Your task to perform on an android device: turn on showing notifications on the lock screen Image 0: 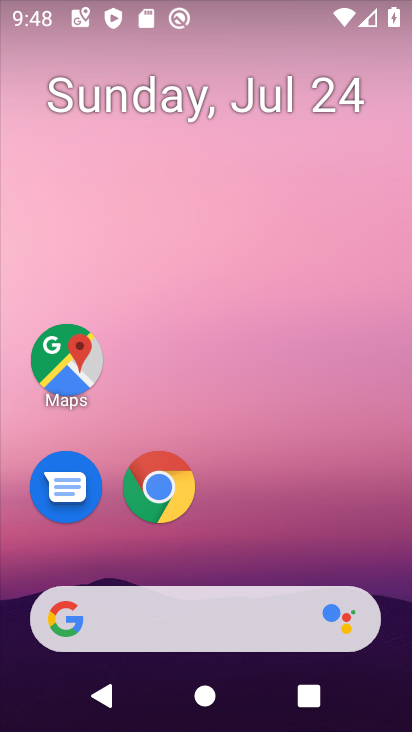
Step 0: drag from (221, 548) to (330, 0)
Your task to perform on an android device: turn on showing notifications on the lock screen Image 1: 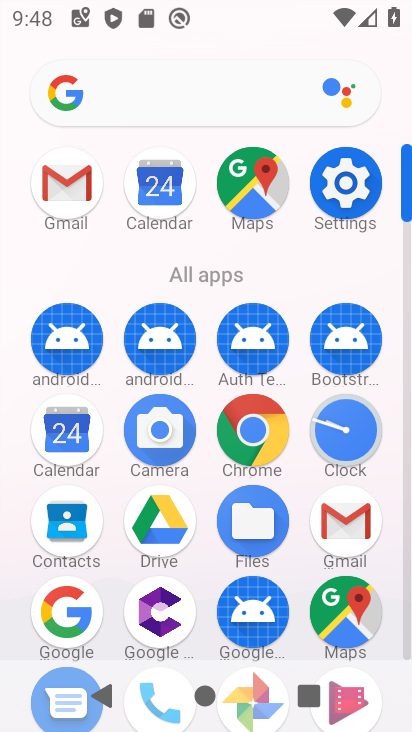
Step 1: click (348, 170)
Your task to perform on an android device: turn on showing notifications on the lock screen Image 2: 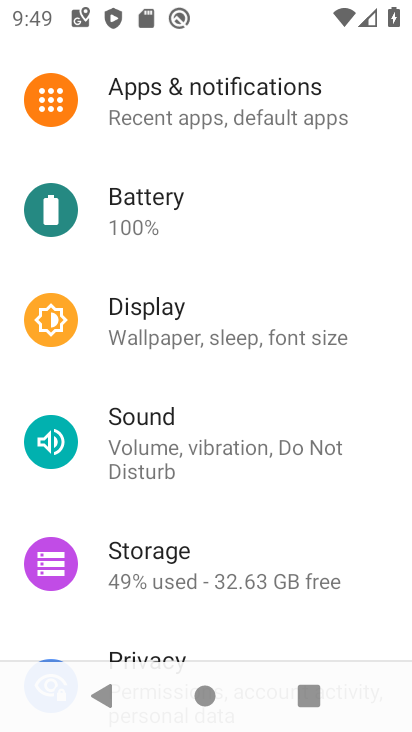
Step 2: click (183, 89)
Your task to perform on an android device: turn on showing notifications on the lock screen Image 3: 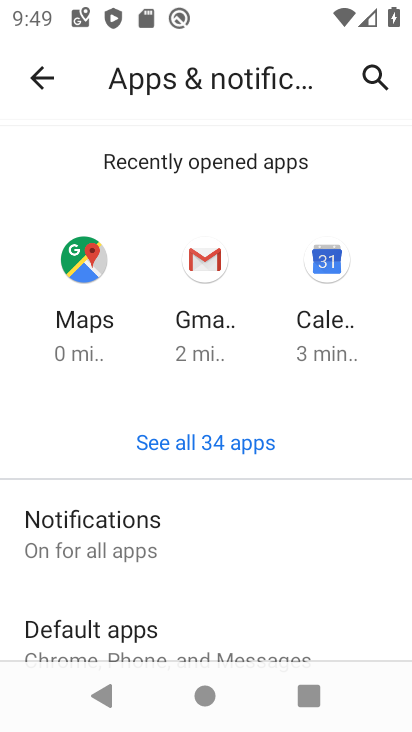
Step 3: click (174, 534)
Your task to perform on an android device: turn on showing notifications on the lock screen Image 4: 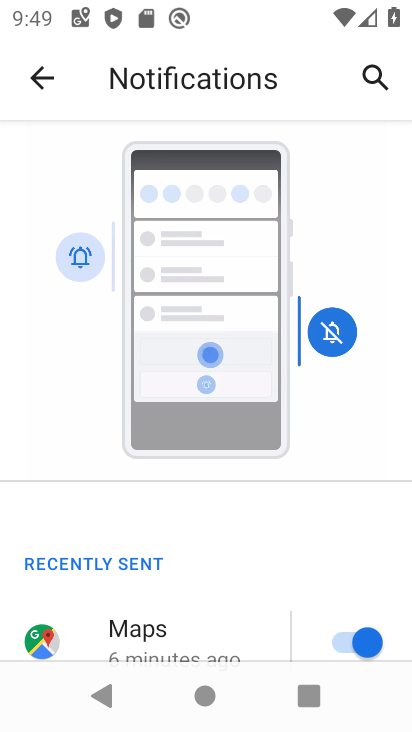
Step 4: drag from (131, 638) to (257, 67)
Your task to perform on an android device: turn on showing notifications on the lock screen Image 5: 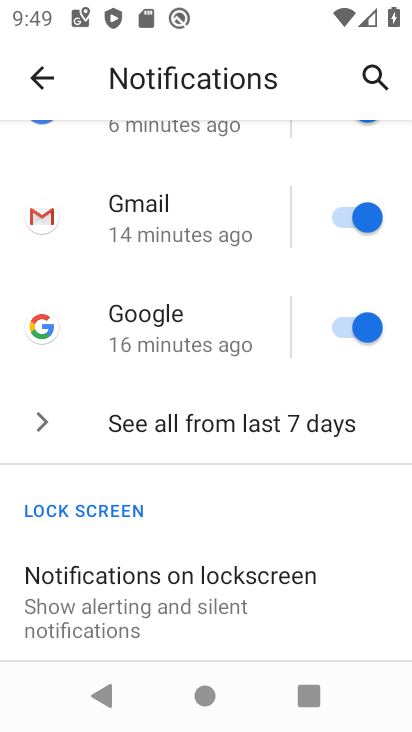
Step 5: click (207, 588)
Your task to perform on an android device: turn on showing notifications on the lock screen Image 6: 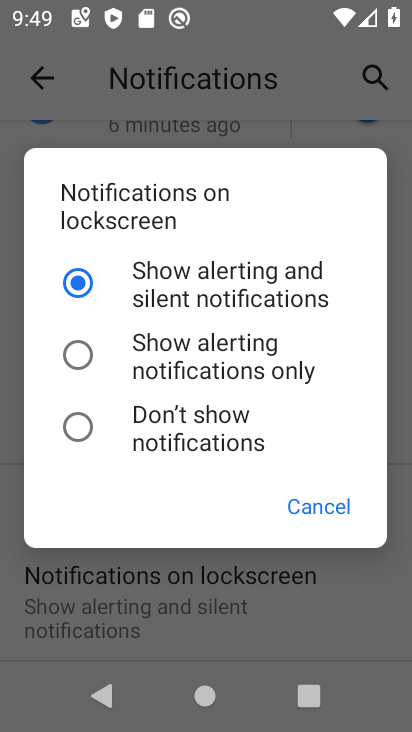
Step 6: task complete